Your task to perform on an android device: turn off sleep mode Image 0: 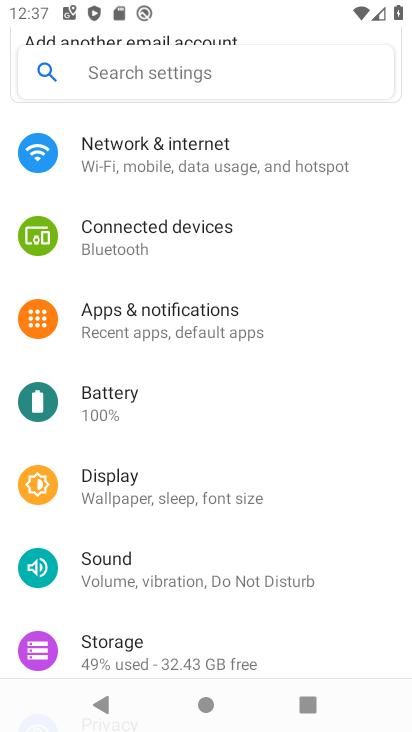
Step 0: click (133, 484)
Your task to perform on an android device: turn off sleep mode Image 1: 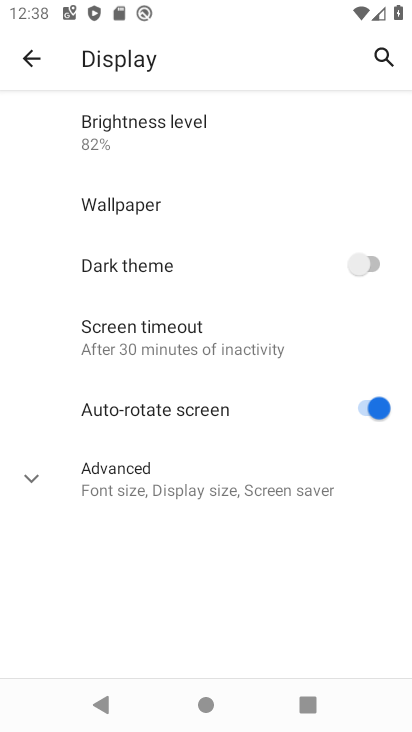
Step 1: click (30, 480)
Your task to perform on an android device: turn off sleep mode Image 2: 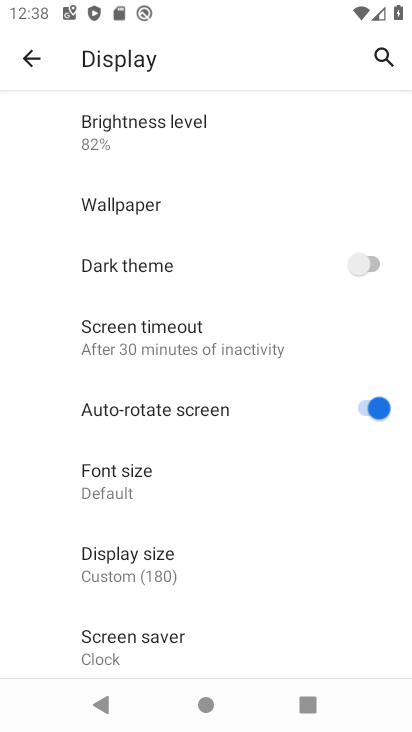
Step 2: task complete